Your task to perform on an android device: star an email in the gmail app Image 0: 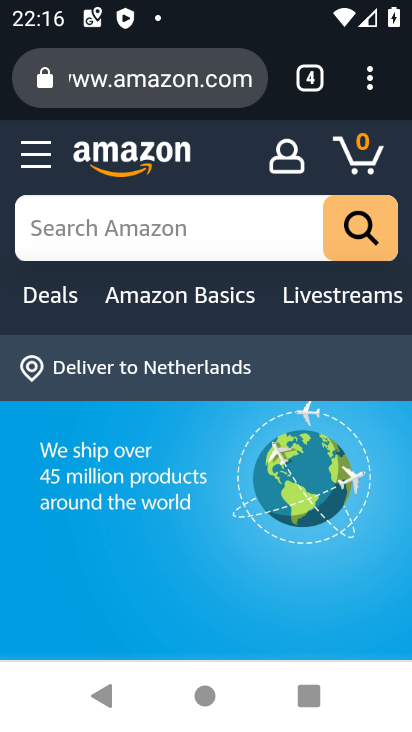
Step 0: press home button
Your task to perform on an android device: star an email in the gmail app Image 1: 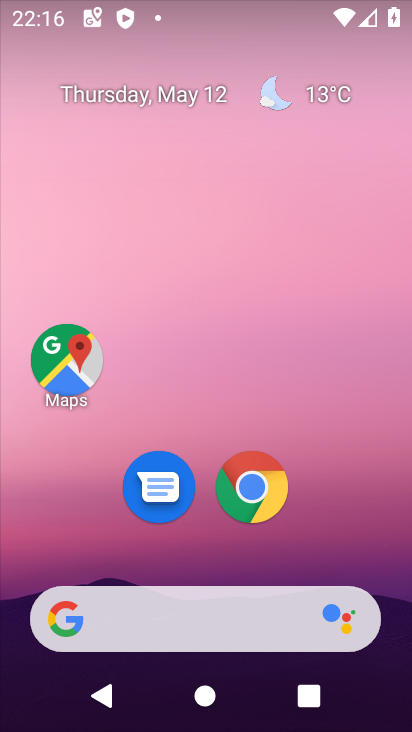
Step 1: drag from (189, 566) to (228, 156)
Your task to perform on an android device: star an email in the gmail app Image 2: 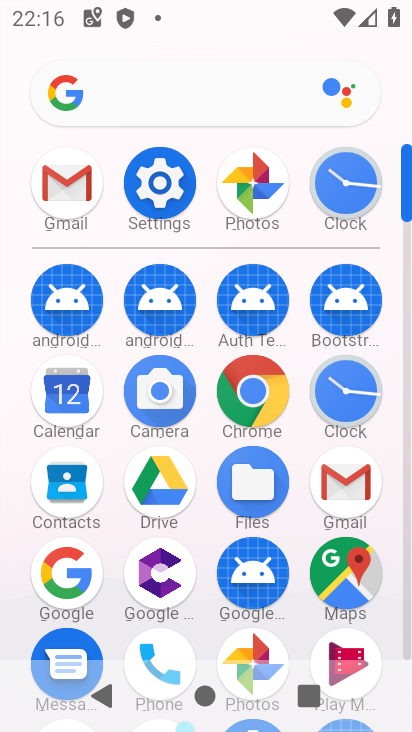
Step 2: click (40, 170)
Your task to perform on an android device: star an email in the gmail app Image 3: 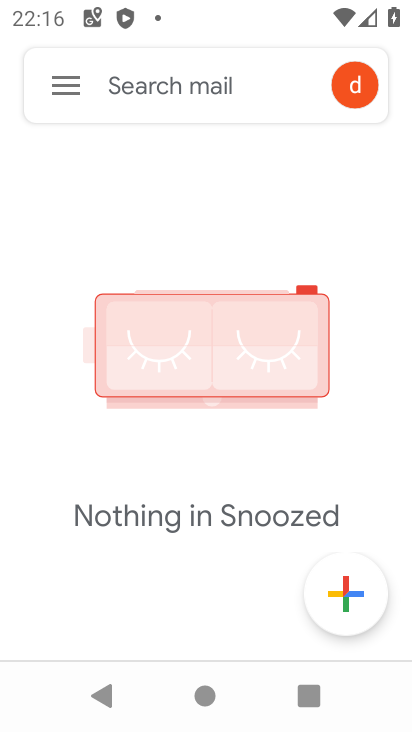
Step 3: click (65, 86)
Your task to perform on an android device: star an email in the gmail app Image 4: 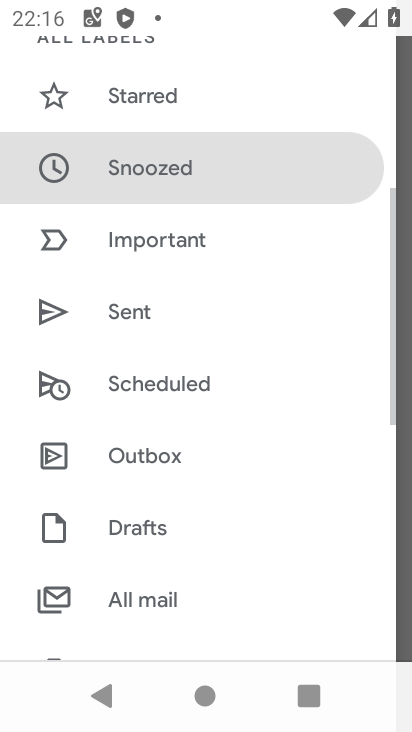
Step 4: drag from (217, 157) to (261, 618)
Your task to perform on an android device: star an email in the gmail app Image 5: 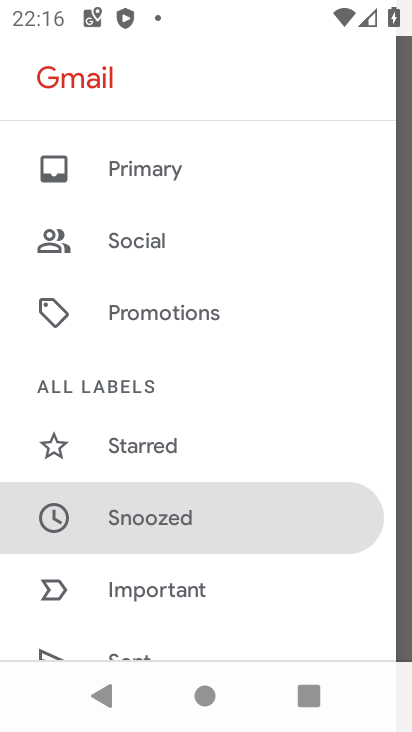
Step 5: drag from (194, 590) to (217, 140)
Your task to perform on an android device: star an email in the gmail app Image 6: 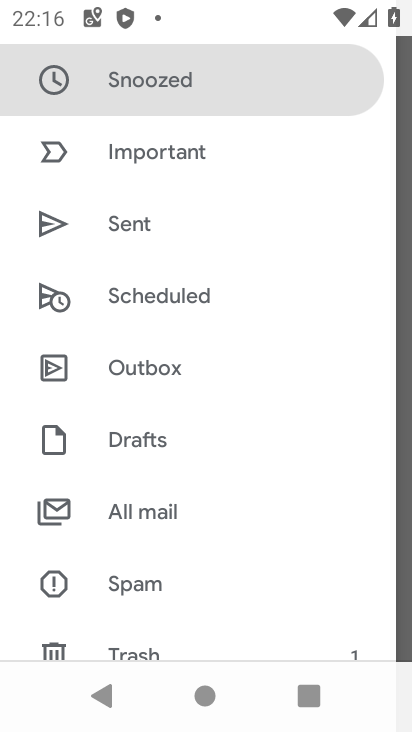
Step 6: click (170, 525)
Your task to perform on an android device: star an email in the gmail app Image 7: 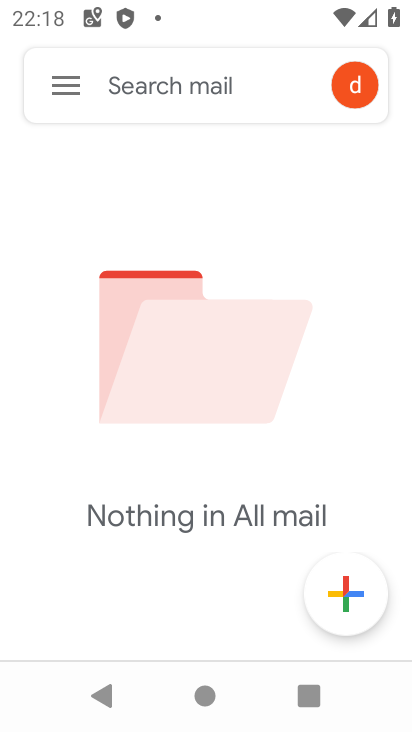
Step 7: task complete